Your task to perform on an android device: Open calendar and show me the first week of next month Image 0: 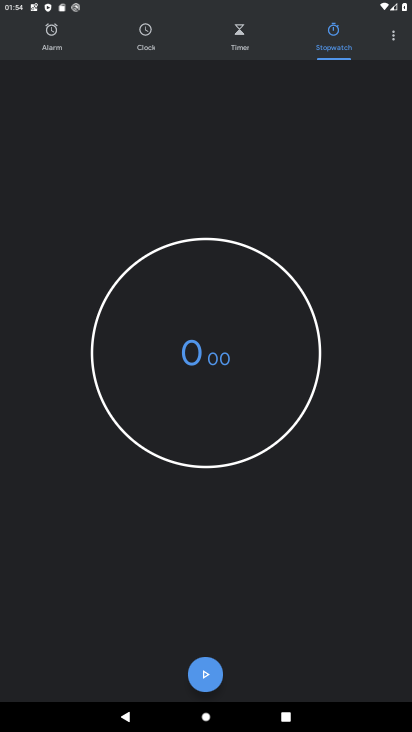
Step 0: press home button
Your task to perform on an android device: Open calendar and show me the first week of next month Image 1: 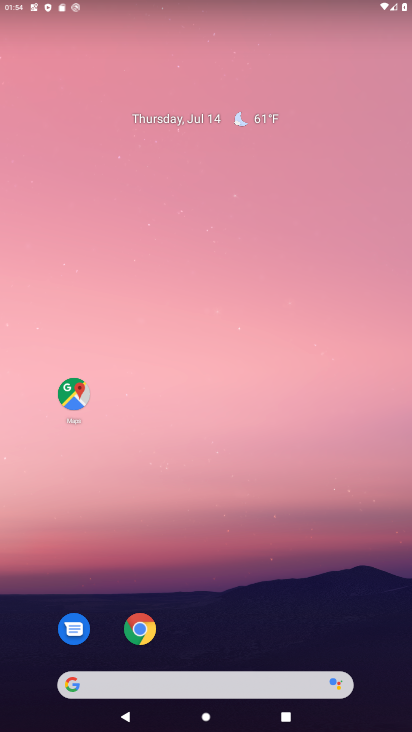
Step 1: drag from (300, 636) to (221, 155)
Your task to perform on an android device: Open calendar and show me the first week of next month Image 2: 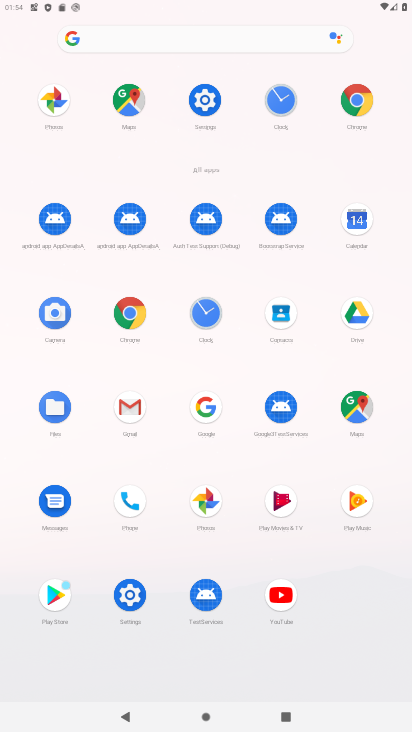
Step 2: click (359, 216)
Your task to perform on an android device: Open calendar and show me the first week of next month Image 3: 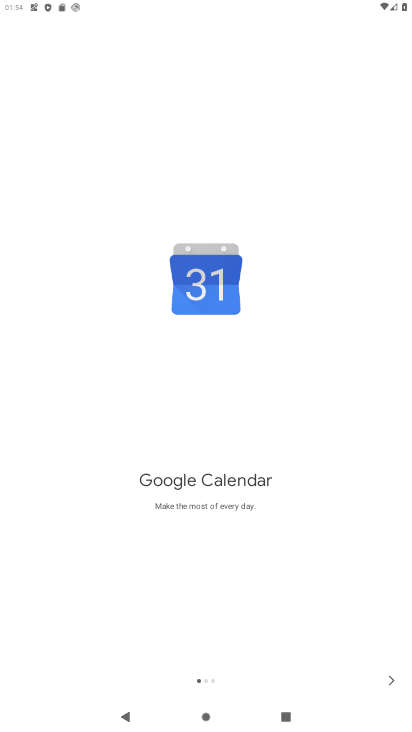
Step 3: click (395, 684)
Your task to perform on an android device: Open calendar and show me the first week of next month Image 4: 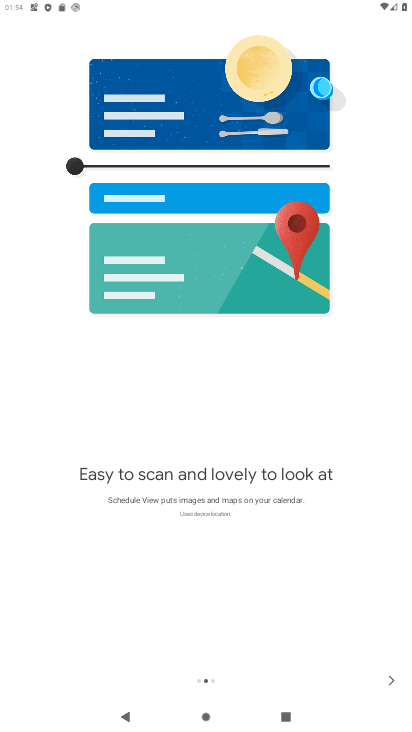
Step 4: click (395, 684)
Your task to perform on an android device: Open calendar and show me the first week of next month Image 5: 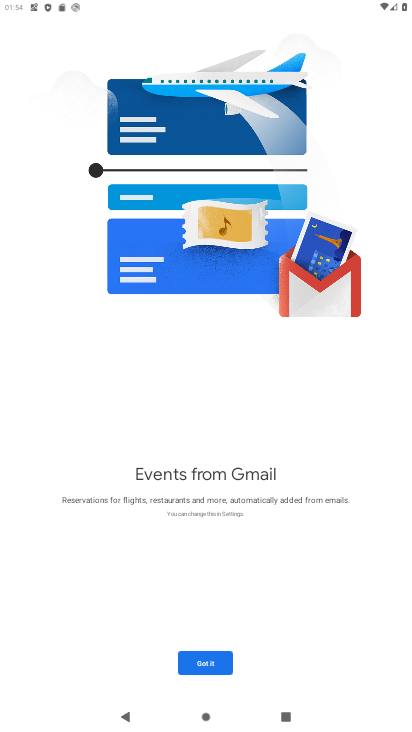
Step 5: click (196, 659)
Your task to perform on an android device: Open calendar and show me the first week of next month Image 6: 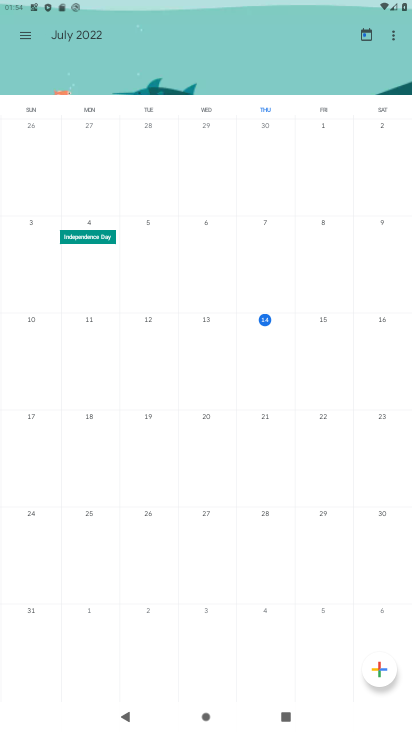
Step 6: click (28, 41)
Your task to perform on an android device: Open calendar and show me the first week of next month Image 7: 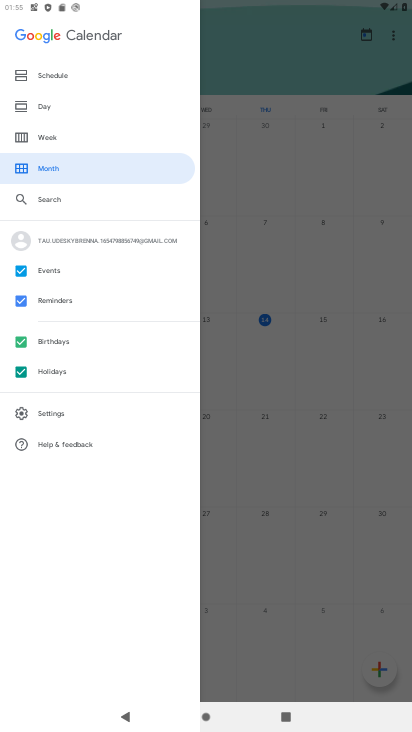
Step 7: click (70, 137)
Your task to perform on an android device: Open calendar and show me the first week of next month Image 8: 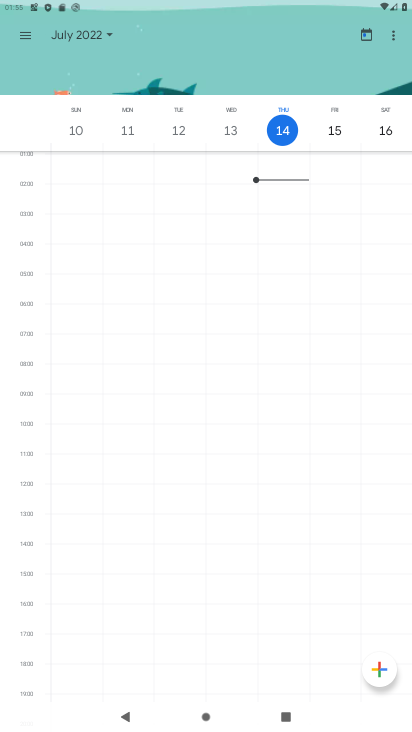
Step 8: click (100, 32)
Your task to perform on an android device: Open calendar and show me the first week of next month Image 9: 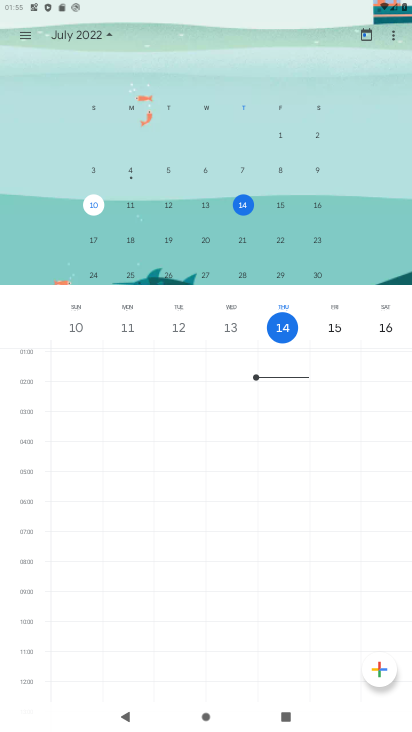
Step 9: drag from (348, 233) to (20, 211)
Your task to perform on an android device: Open calendar and show me the first week of next month Image 10: 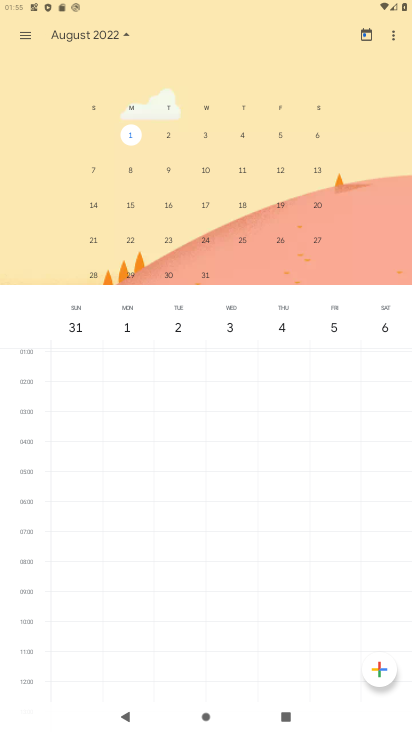
Step 10: click (167, 138)
Your task to perform on an android device: Open calendar and show me the first week of next month Image 11: 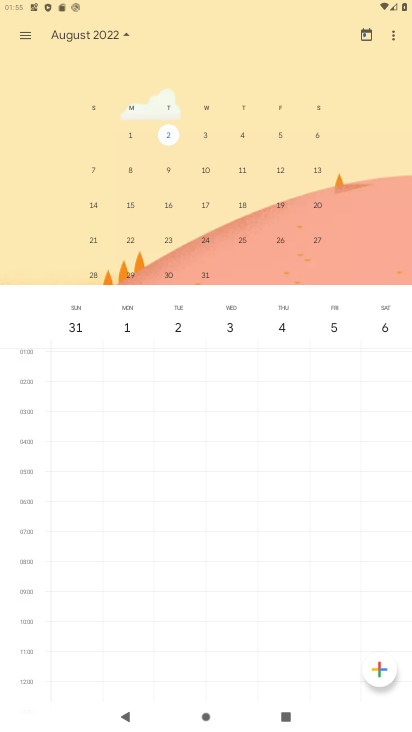
Step 11: task complete